Your task to perform on an android device: turn off javascript in the chrome app Image 0: 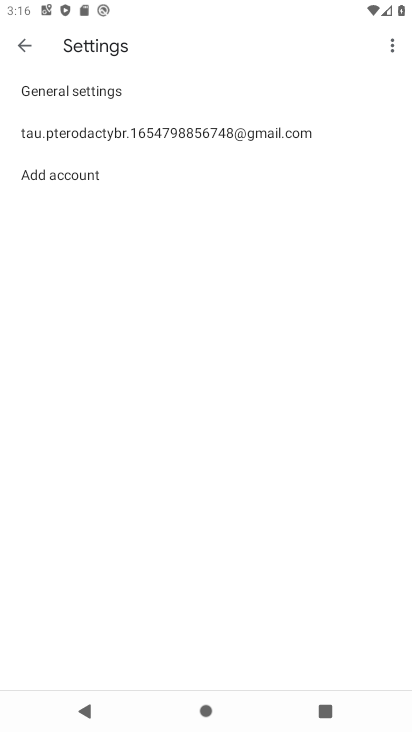
Step 0: press home button
Your task to perform on an android device: turn off javascript in the chrome app Image 1: 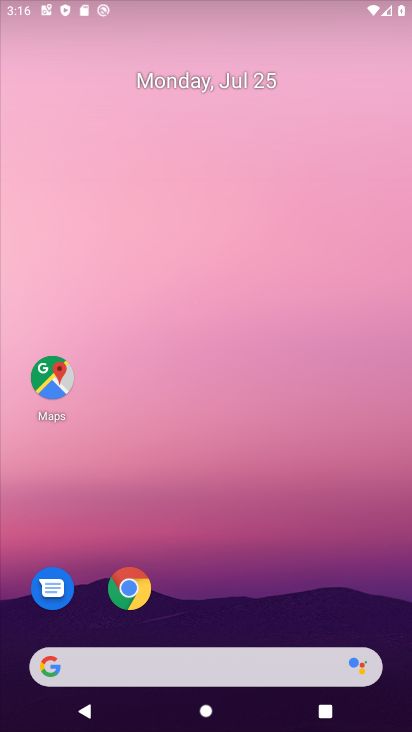
Step 1: drag from (372, 584) to (308, 0)
Your task to perform on an android device: turn off javascript in the chrome app Image 2: 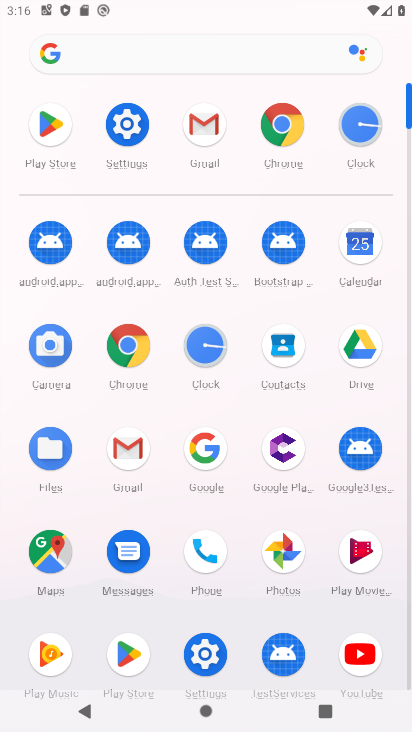
Step 2: click (282, 127)
Your task to perform on an android device: turn off javascript in the chrome app Image 3: 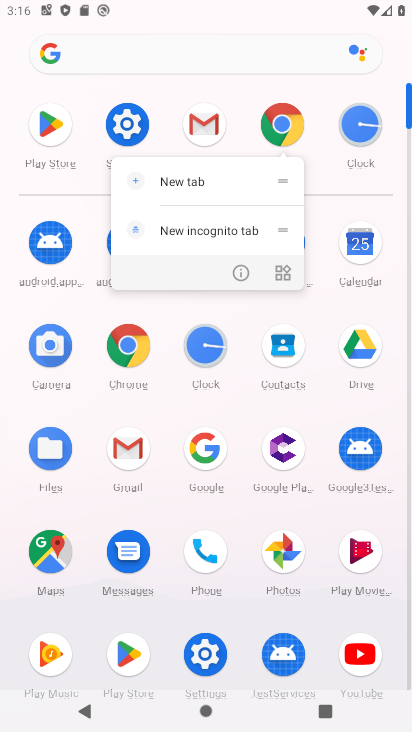
Step 3: click (286, 119)
Your task to perform on an android device: turn off javascript in the chrome app Image 4: 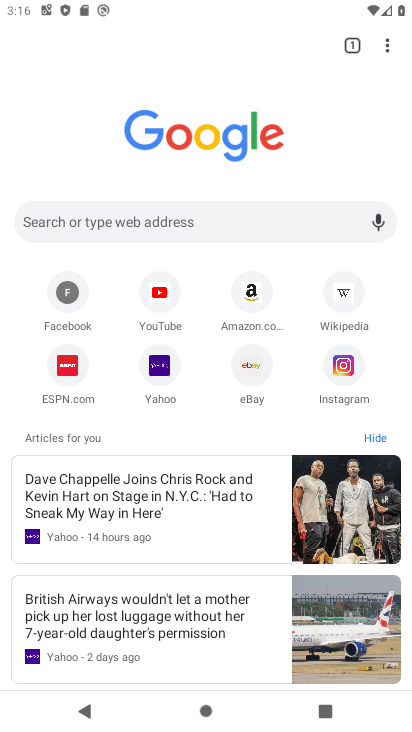
Step 4: drag from (389, 38) to (224, 385)
Your task to perform on an android device: turn off javascript in the chrome app Image 5: 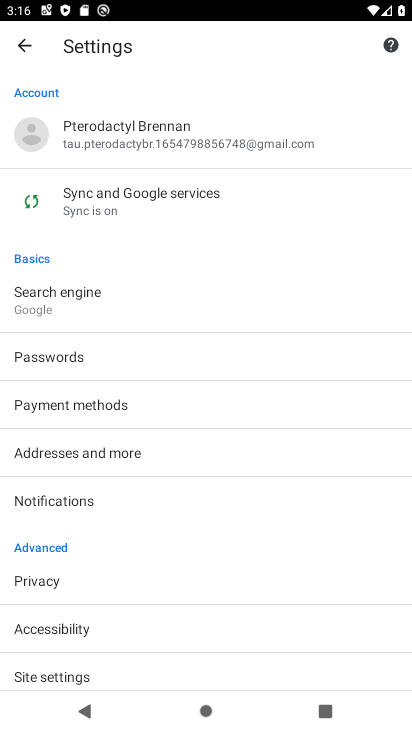
Step 5: click (66, 675)
Your task to perform on an android device: turn off javascript in the chrome app Image 6: 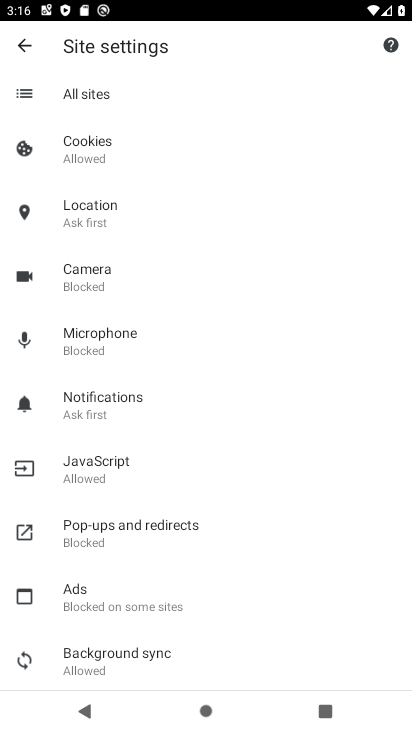
Step 6: click (106, 476)
Your task to perform on an android device: turn off javascript in the chrome app Image 7: 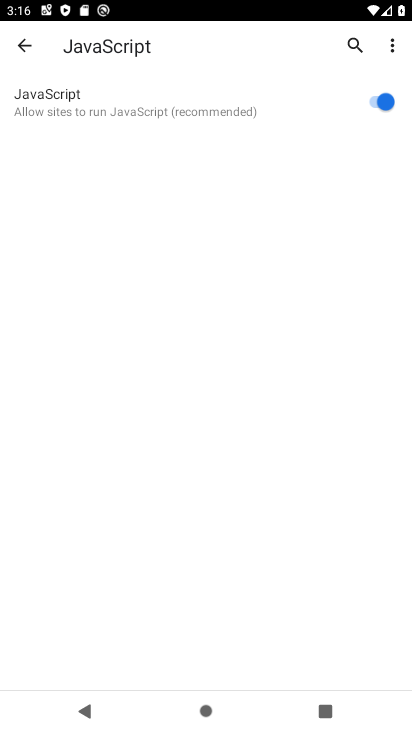
Step 7: click (369, 102)
Your task to perform on an android device: turn off javascript in the chrome app Image 8: 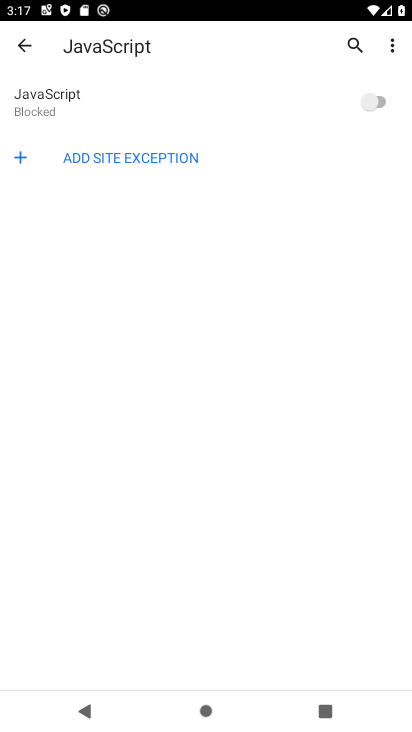
Step 8: task complete